Your task to perform on an android device: open device folders in google photos Image 0: 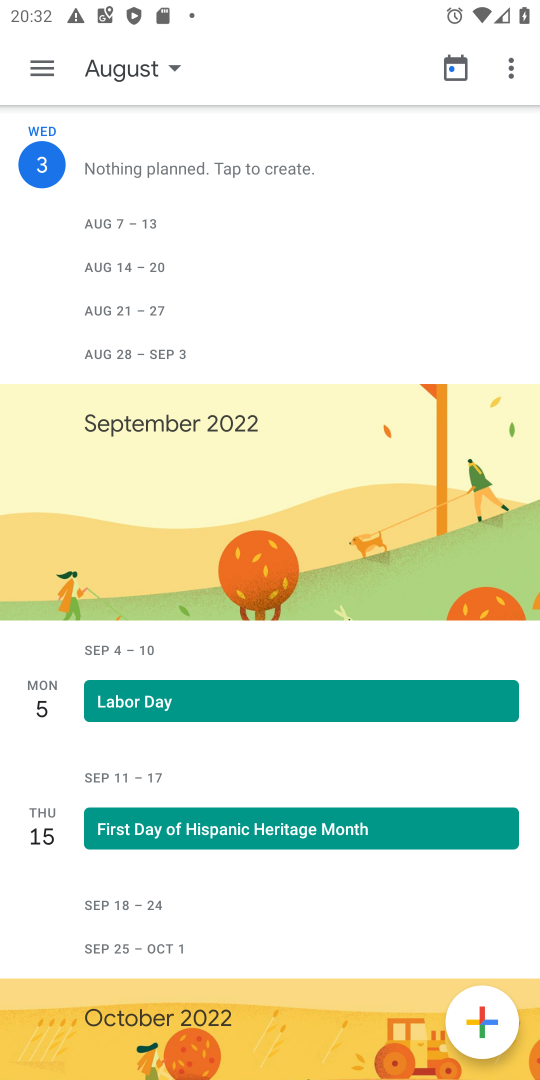
Step 0: press home button
Your task to perform on an android device: open device folders in google photos Image 1: 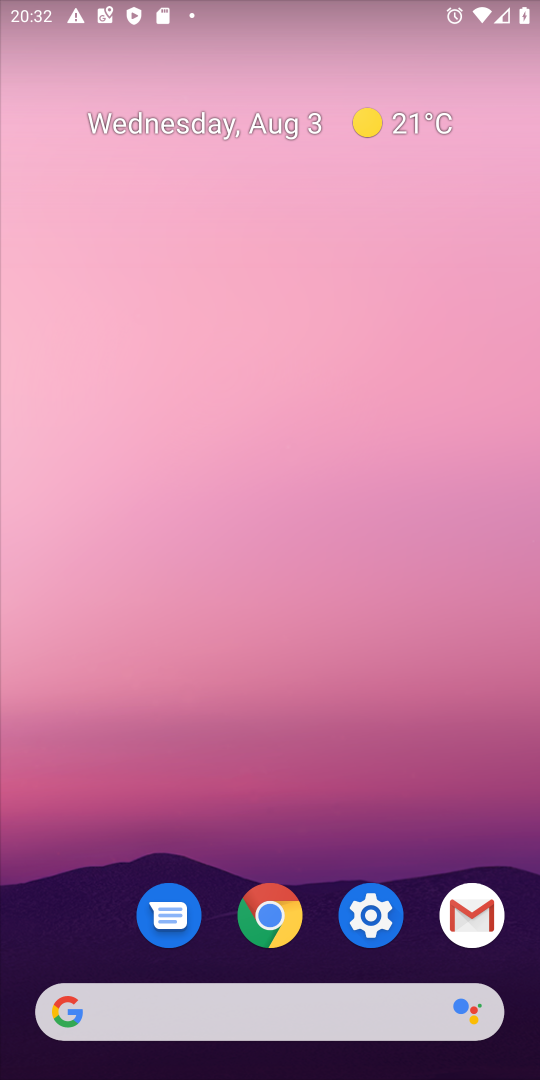
Step 1: drag from (298, 1041) to (345, 139)
Your task to perform on an android device: open device folders in google photos Image 2: 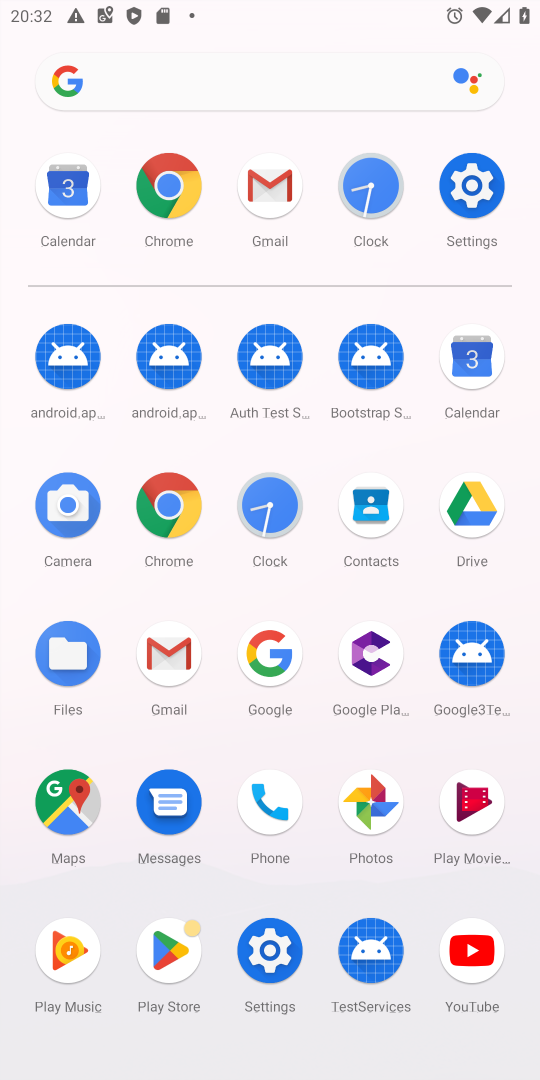
Step 2: click (362, 819)
Your task to perform on an android device: open device folders in google photos Image 3: 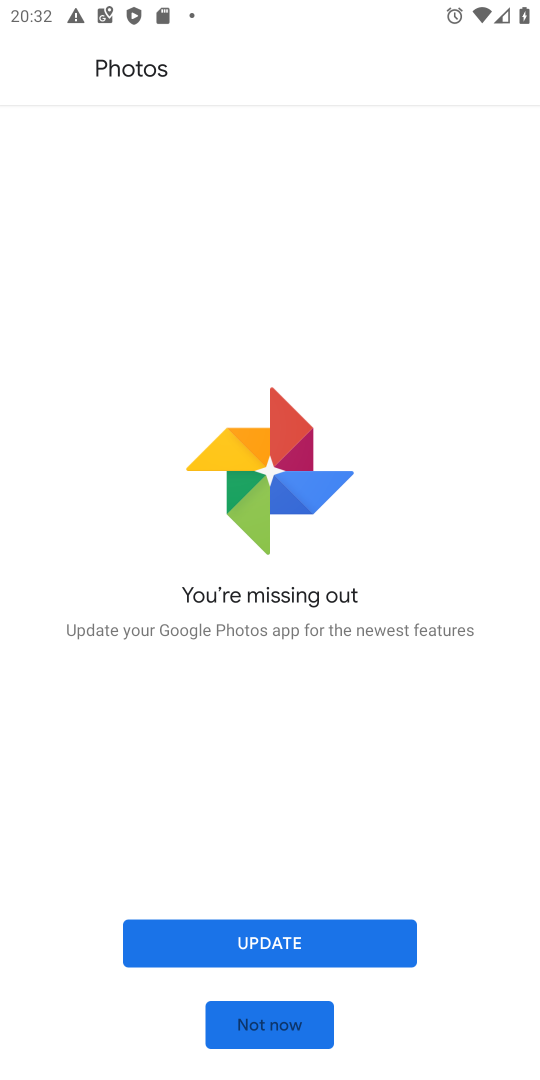
Step 3: click (276, 940)
Your task to perform on an android device: open device folders in google photos Image 4: 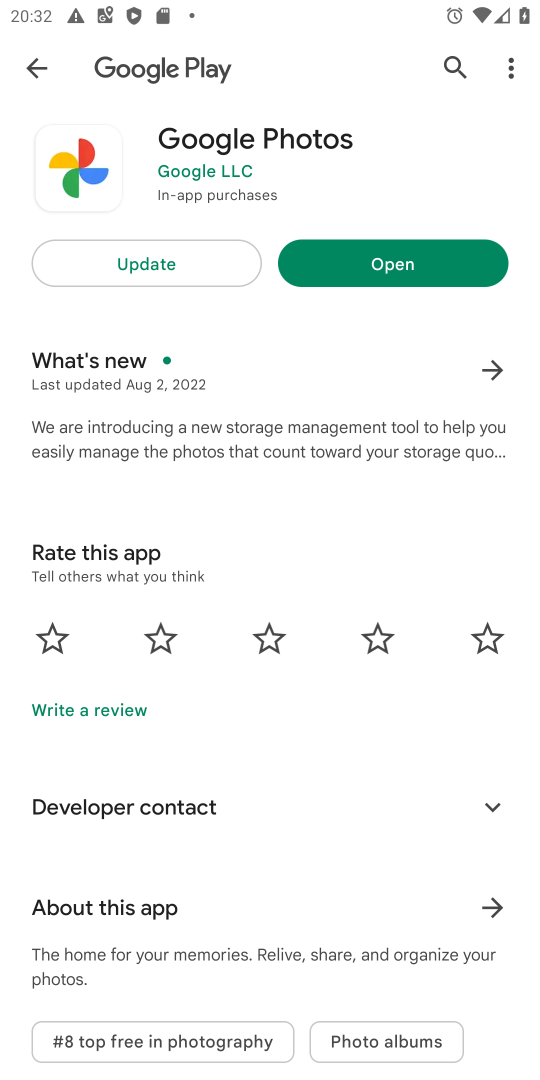
Step 4: click (142, 266)
Your task to perform on an android device: open device folders in google photos Image 5: 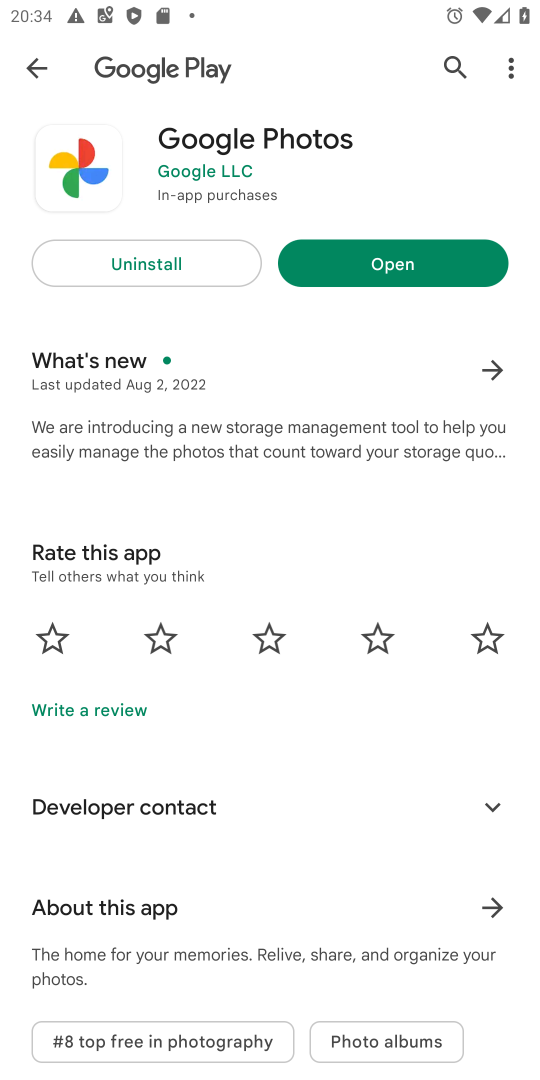
Step 5: click (399, 243)
Your task to perform on an android device: open device folders in google photos Image 6: 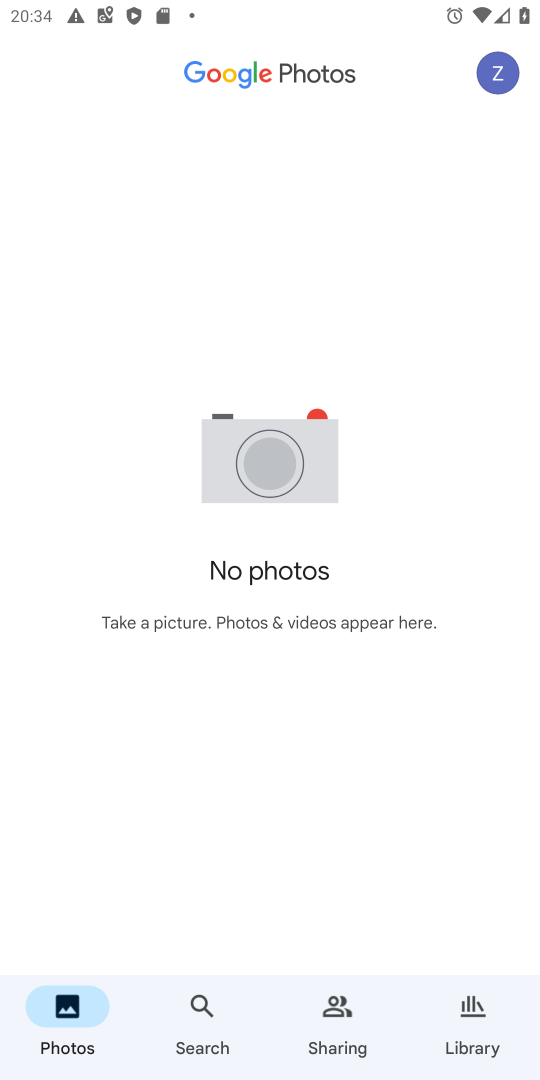
Step 6: click (217, 1001)
Your task to perform on an android device: open device folders in google photos Image 7: 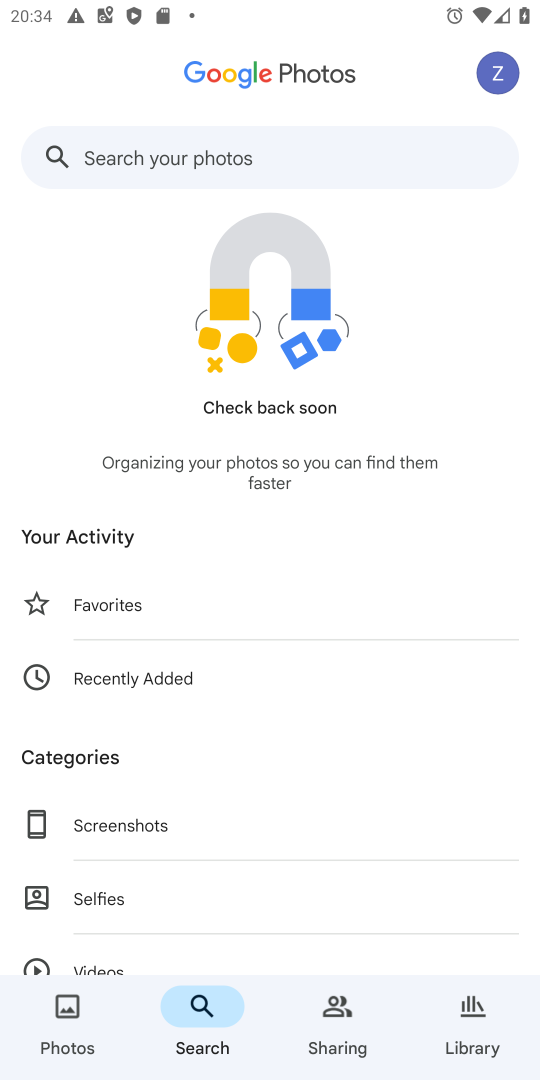
Step 7: click (196, 1015)
Your task to perform on an android device: open device folders in google photos Image 8: 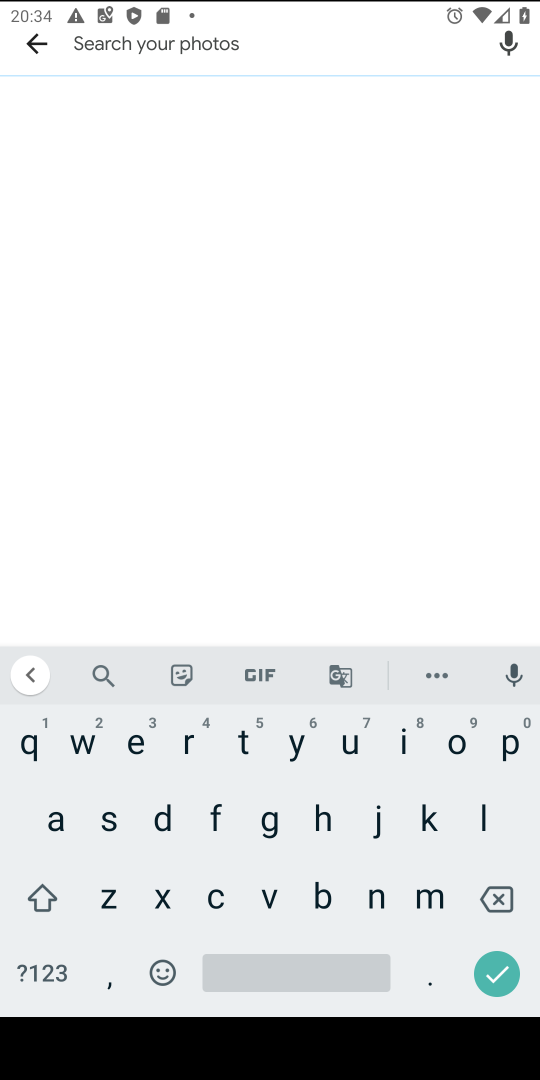
Step 8: click (142, 813)
Your task to perform on an android device: open device folders in google photos Image 9: 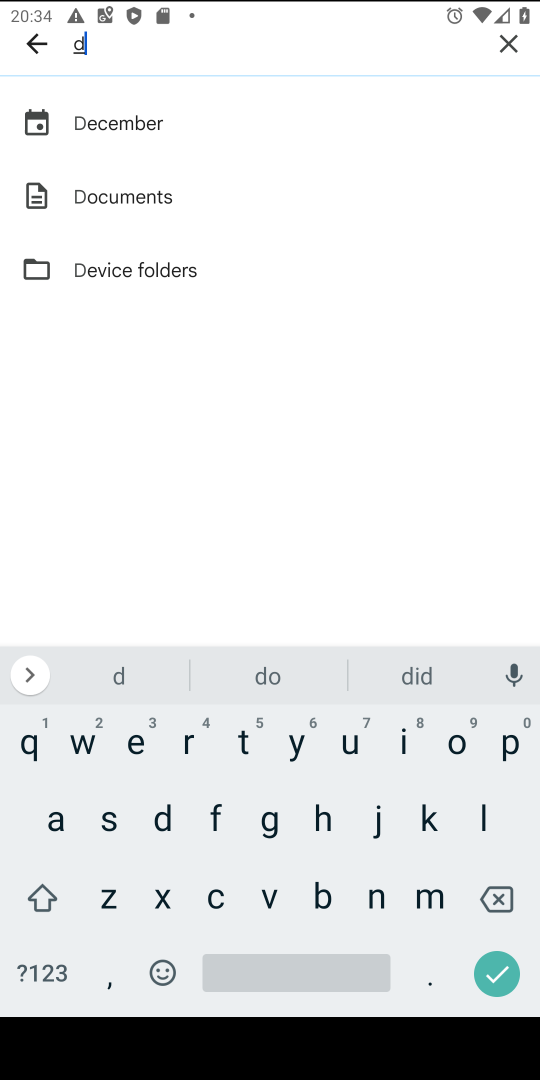
Step 9: click (146, 269)
Your task to perform on an android device: open device folders in google photos Image 10: 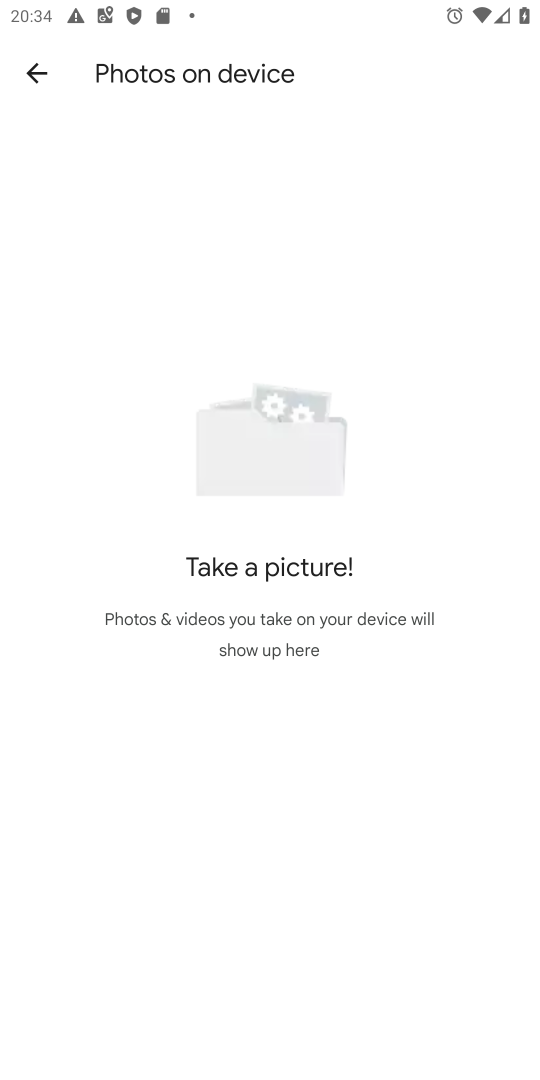
Step 10: task complete